Your task to perform on an android device: Open the calendar app, open the side menu, and click the "Day" option Image 0: 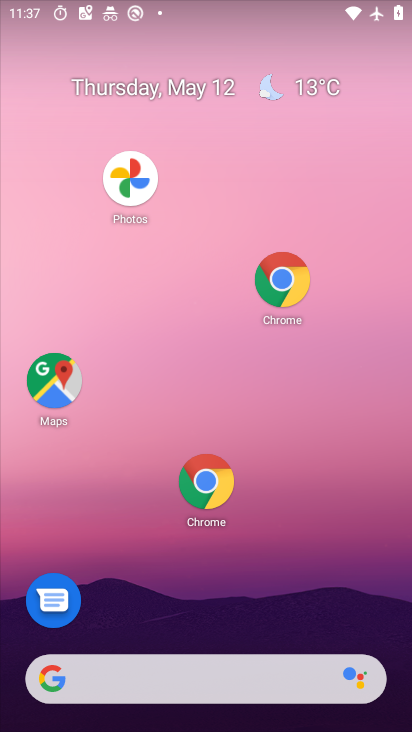
Step 0: drag from (263, 378) to (254, 191)
Your task to perform on an android device: Open the calendar app, open the side menu, and click the "Day" option Image 1: 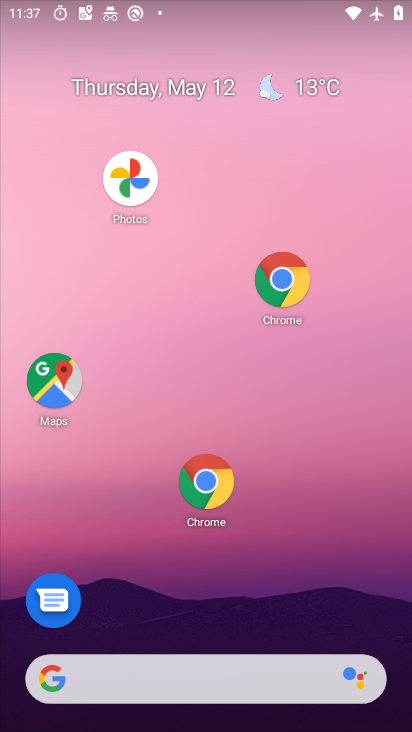
Step 1: drag from (300, 568) to (243, 357)
Your task to perform on an android device: Open the calendar app, open the side menu, and click the "Day" option Image 2: 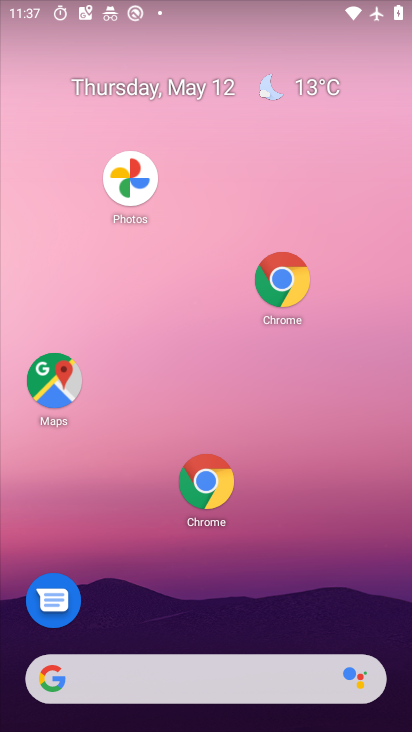
Step 2: drag from (290, 576) to (240, 73)
Your task to perform on an android device: Open the calendar app, open the side menu, and click the "Day" option Image 3: 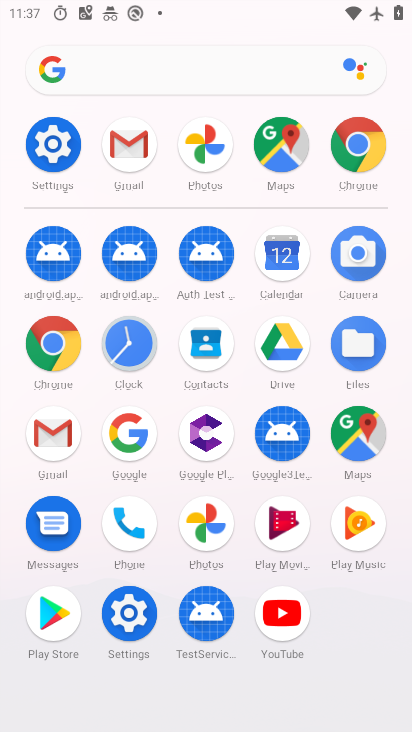
Step 3: click (273, 258)
Your task to perform on an android device: Open the calendar app, open the side menu, and click the "Day" option Image 4: 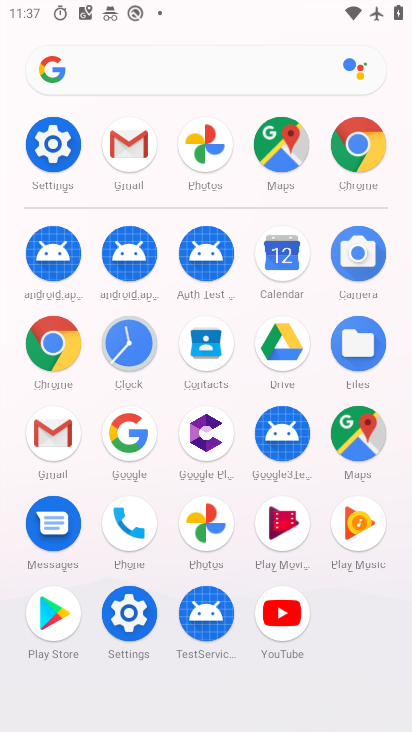
Step 4: click (274, 252)
Your task to perform on an android device: Open the calendar app, open the side menu, and click the "Day" option Image 5: 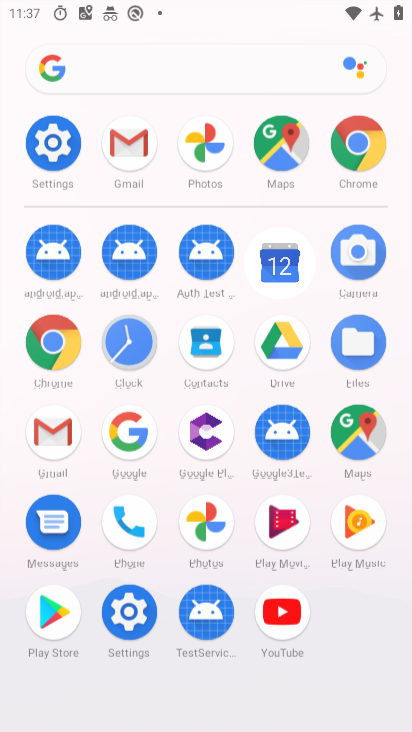
Step 5: click (274, 252)
Your task to perform on an android device: Open the calendar app, open the side menu, and click the "Day" option Image 6: 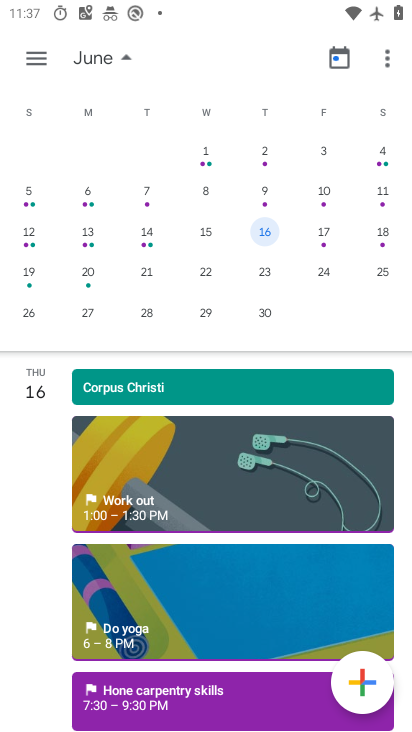
Step 6: click (35, 59)
Your task to perform on an android device: Open the calendar app, open the side menu, and click the "Day" option Image 7: 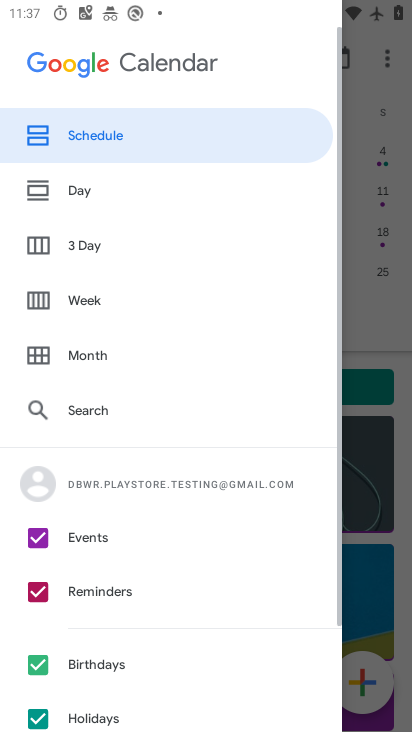
Step 7: click (86, 188)
Your task to perform on an android device: Open the calendar app, open the side menu, and click the "Day" option Image 8: 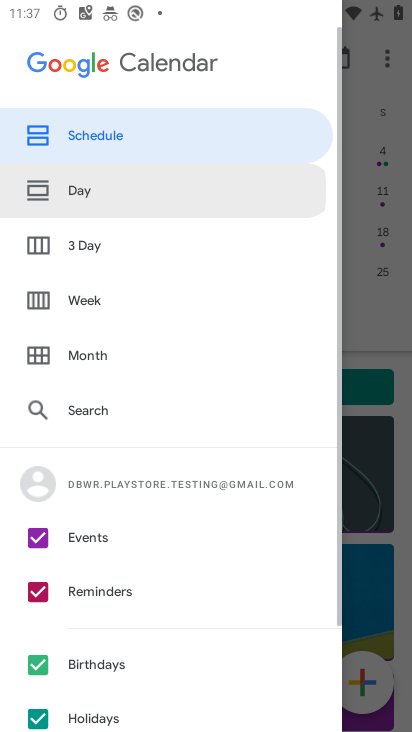
Step 8: click (86, 188)
Your task to perform on an android device: Open the calendar app, open the side menu, and click the "Day" option Image 9: 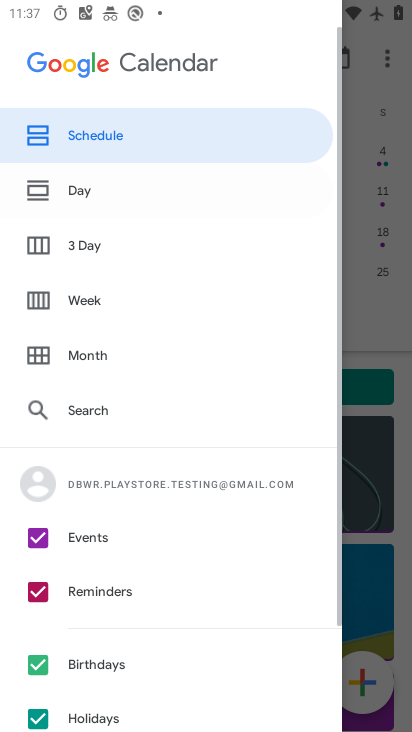
Step 9: click (85, 187)
Your task to perform on an android device: Open the calendar app, open the side menu, and click the "Day" option Image 10: 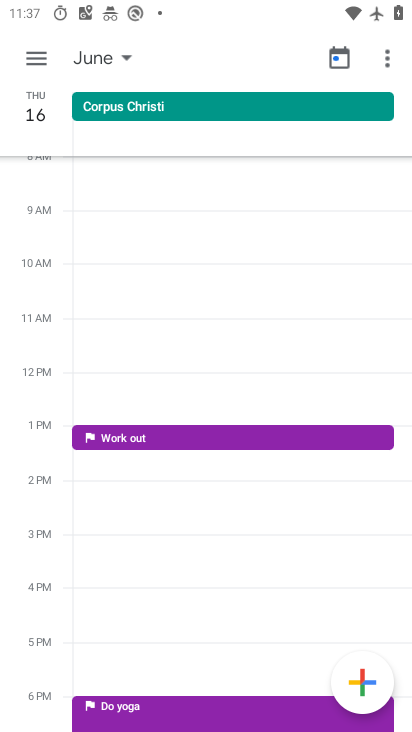
Step 10: click (121, 62)
Your task to perform on an android device: Open the calendar app, open the side menu, and click the "Day" option Image 11: 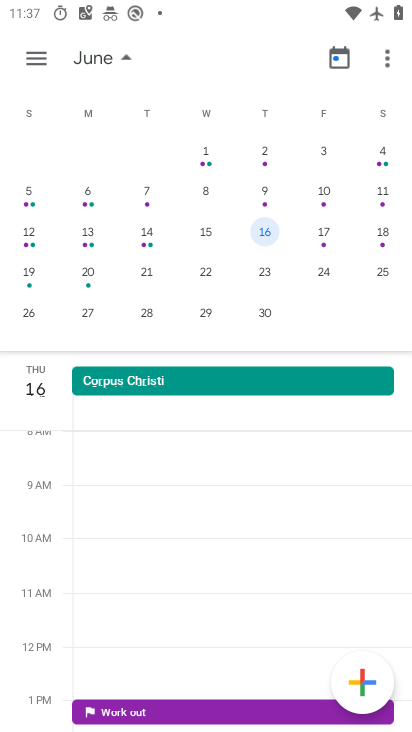
Step 11: click (0, 308)
Your task to perform on an android device: Open the calendar app, open the side menu, and click the "Day" option Image 12: 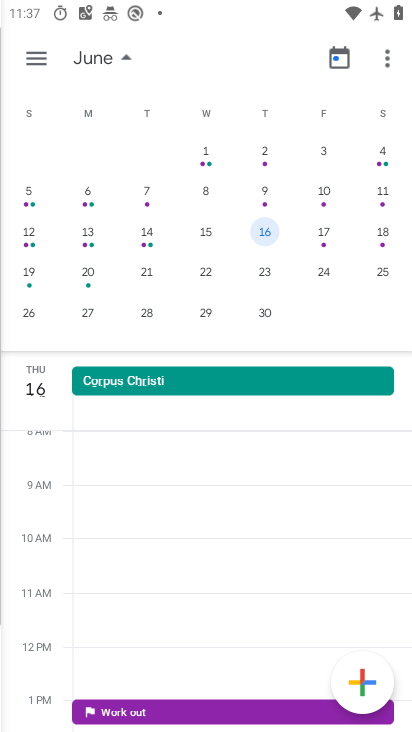
Step 12: drag from (94, 239) to (29, 250)
Your task to perform on an android device: Open the calendar app, open the side menu, and click the "Day" option Image 13: 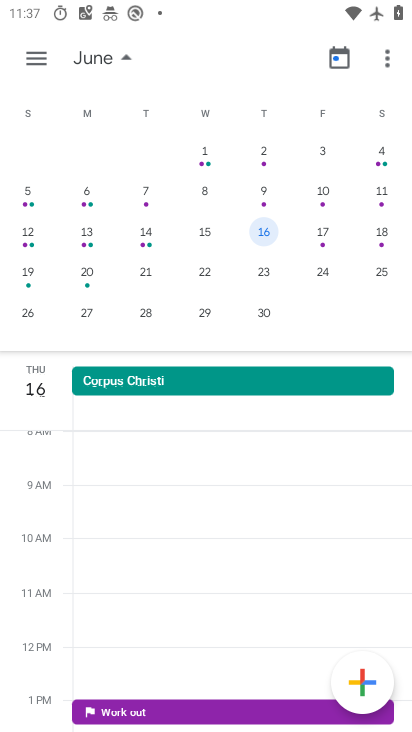
Step 13: drag from (375, 205) to (16, 243)
Your task to perform on an android device: Open the calendar app, open the side menu, and click the "Day" option Image 14: 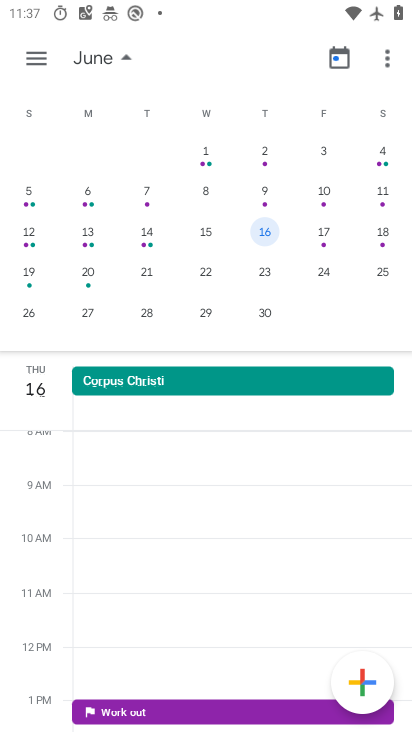
Step 14: drag from (270, 170) to (4, 219)
Your task to perform on an android device: Open the calendar app, open the side menu, and click the "Day" option Image 15: 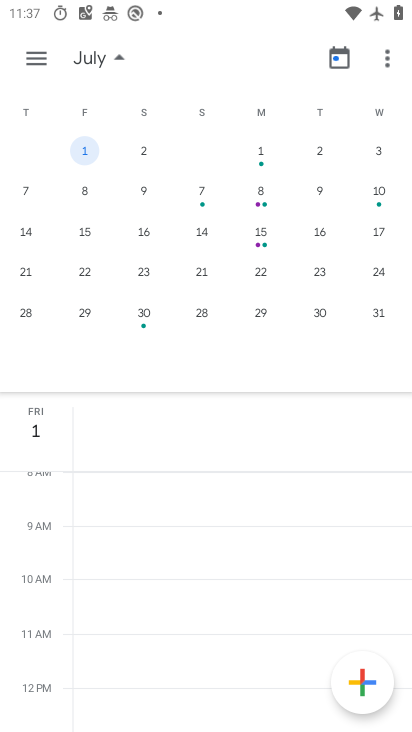
Step 15: drag from (235, 197) to (69, 252)
Your task to perform on an android device: Open the calendar app, open the side menu, and click the "Day" option Image 16: 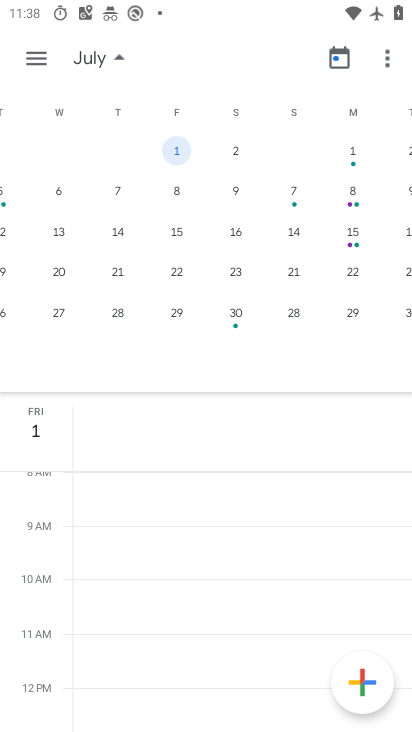
Step 16: drag from (243, 182) to (62, 252)
Your task to perform on an android device: Open the calendar app, open the side menu, and click the "Day" option Image 17: 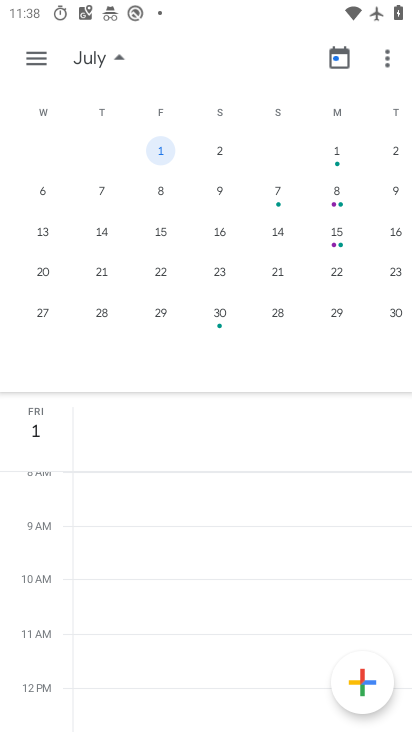
Step 17: drag from (186, 197) to (118, 206)
Your task to perform on an android device: Open the calendar app, open the side menu, and click the "Day" option Image 18: 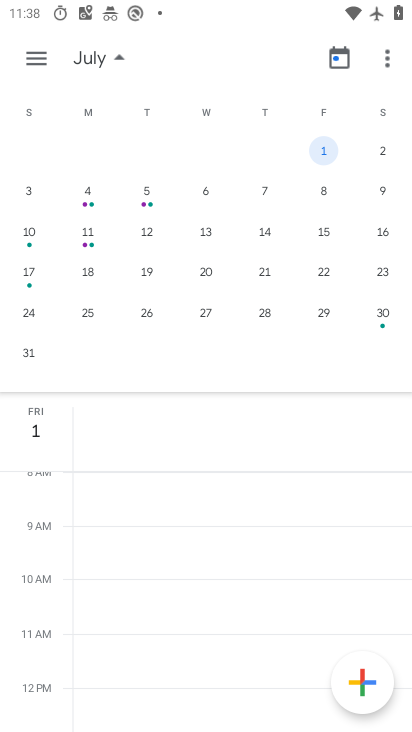
Step 18: click (340, 231)
Your task to perform on an android device: Open the calendar app, open the side menu, and click the "Day" option Image 19: 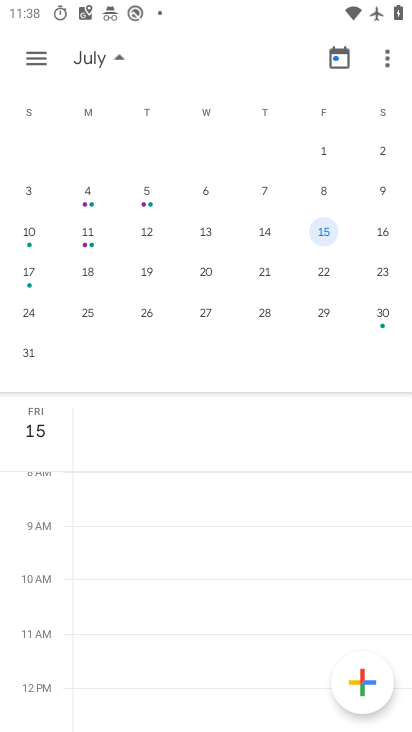
Step 19: task complete